Your task to perform on an android device: Open settings on Google Maps Image 0: 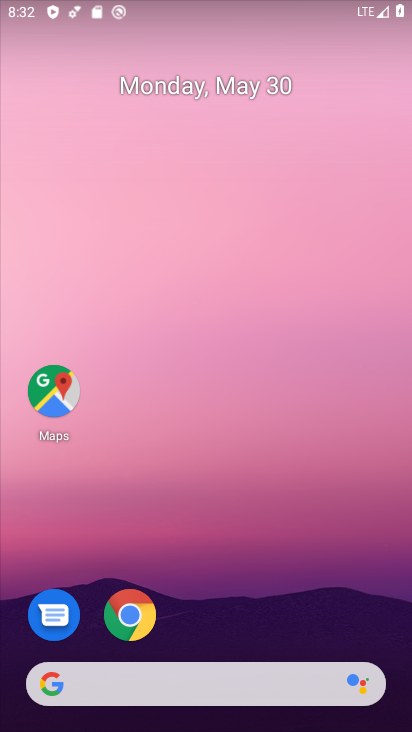
Step 0: click (77, 403)
Your task to perform on an android device: Open settings on Google Maps Image 1: 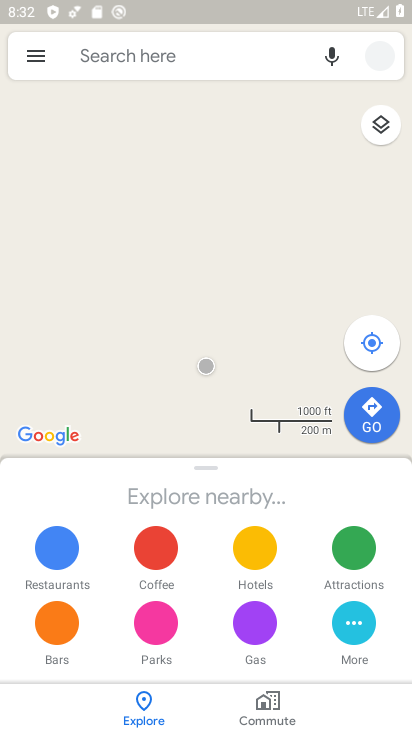
Step 1: click (47, 57)
Your task to perform on an android device: Open settings on Google Maps Image 2: 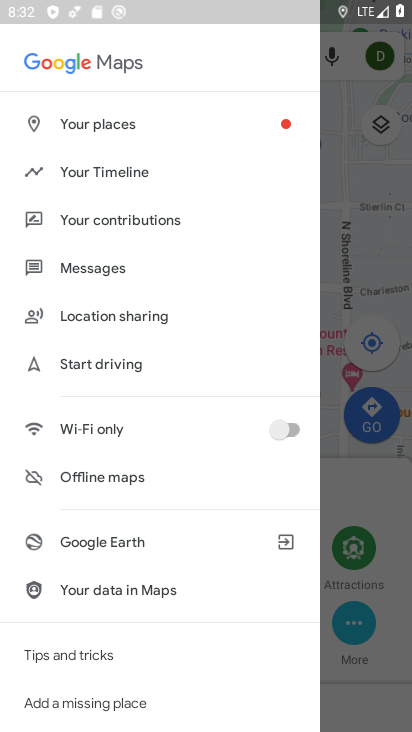
Step 2: drag from (130, 710) to (174, 364)
Your task to perform on an android device: Open settings on Google Maps Image 3: 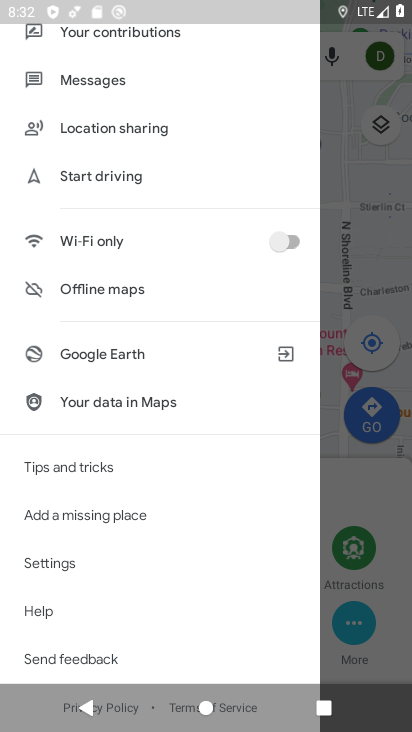
Step 3: click (52, 565)
Your task to perform on an android device: Open settings on Google Maps Image 4: 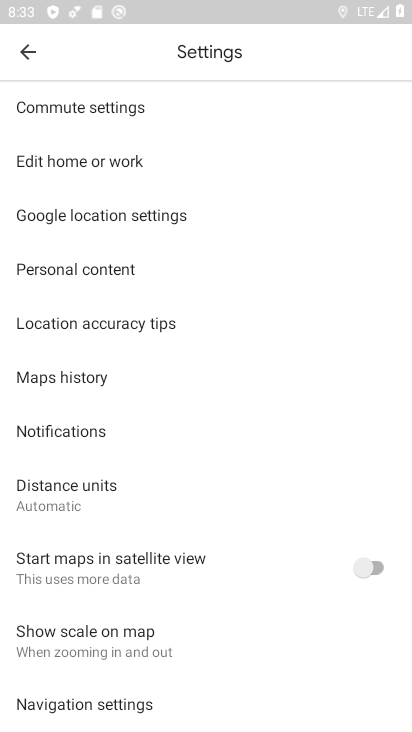
Step 4: task complete